Your task to perform on an android device: open device folders in google photos Image 0: 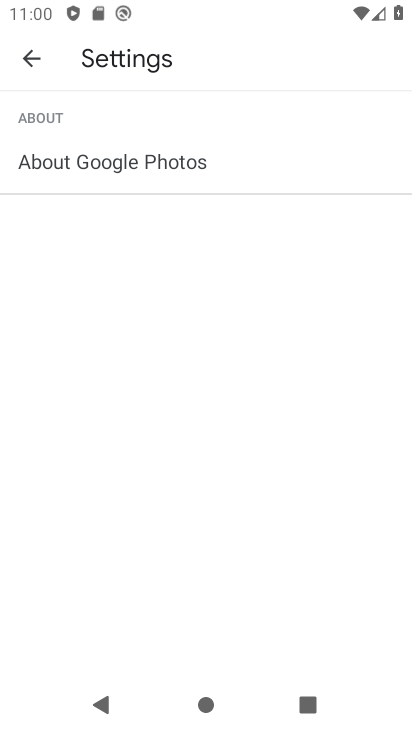
Step 0: press home button
Your task to perform on an android device: open device folders in google photos Image 1: 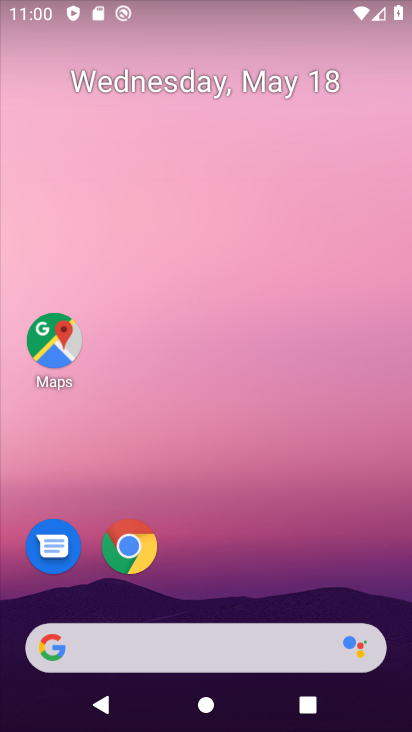
Step 1: drag from (229, 572) to (208, 49)
Your task to perform on an android device: open device folders in google photos Image 2: 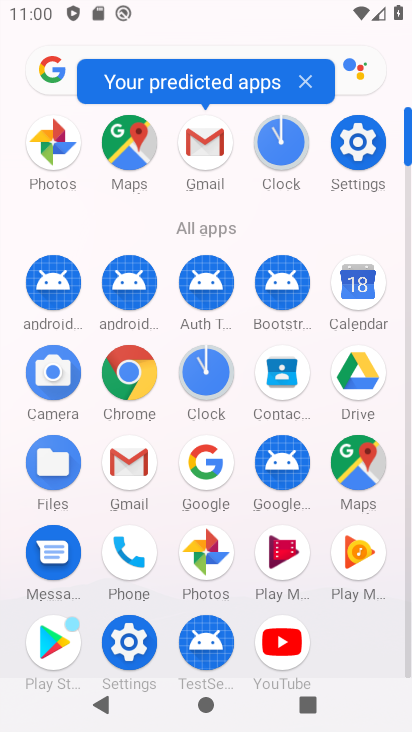
Step 2: click (202, 554)
Your task to perform on an android device: open device folders in google photos Image 3: 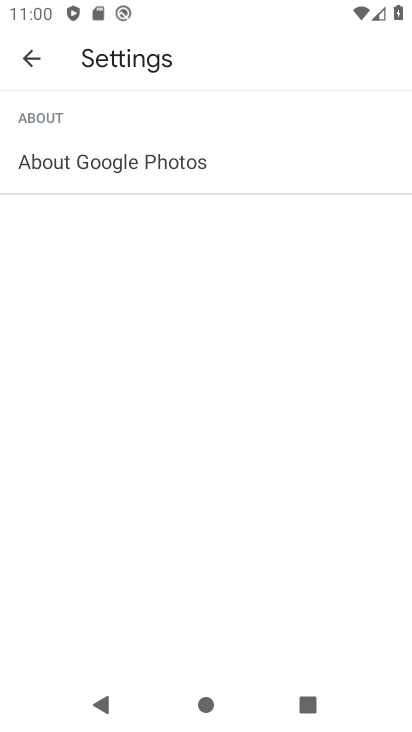
Step 3: press back button
Your task to perform on an android device: open device folders in google photos Image 4: 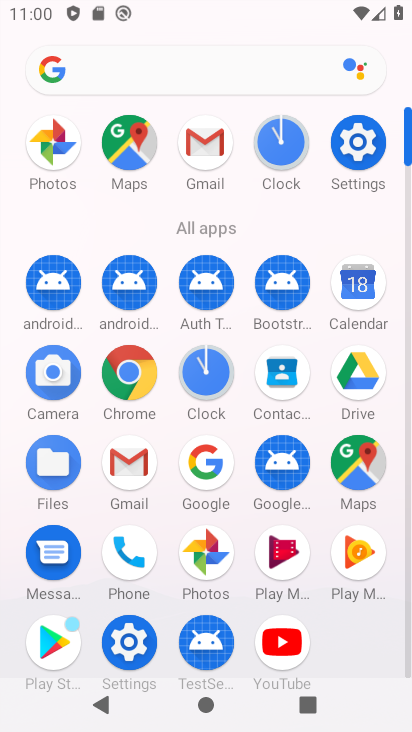
Step 4: click (211, 551)
Your task to perform on an android device: open device folders in google photos Image 5: 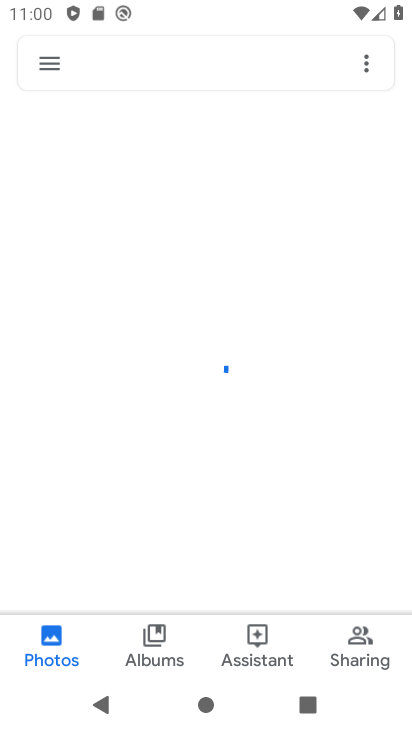
Step 5: click (46, 65)
Your task to perform on an android device: open device folders in google photos Image 6: 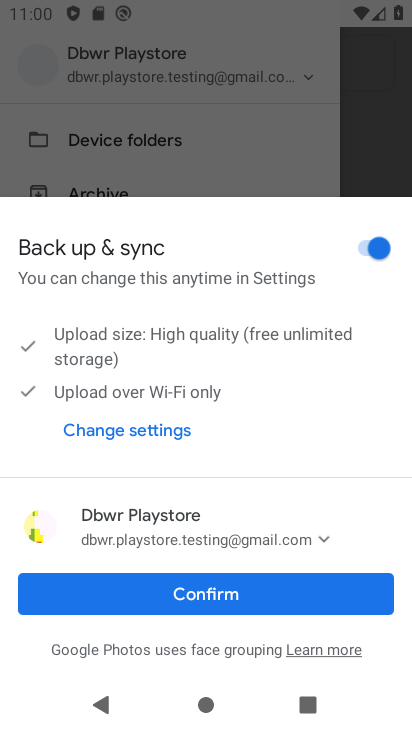
Step 6: click (227, 582)
Your task to perform on an android device: open device folders in google photos Image 7: 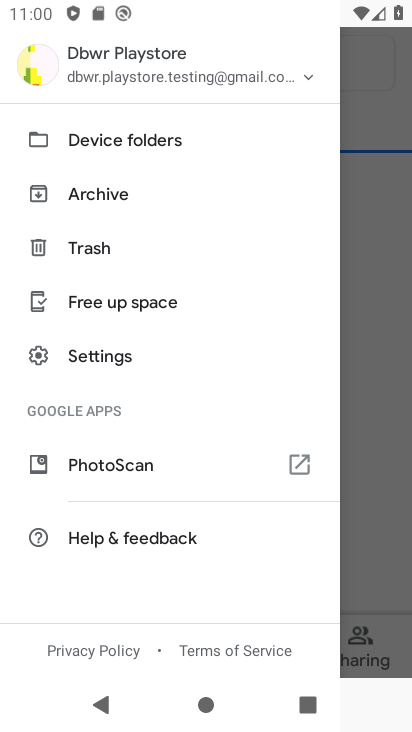
Step 7: click (111, 135)
Your task to perform on an android device: open device folders in google photos Image 8: 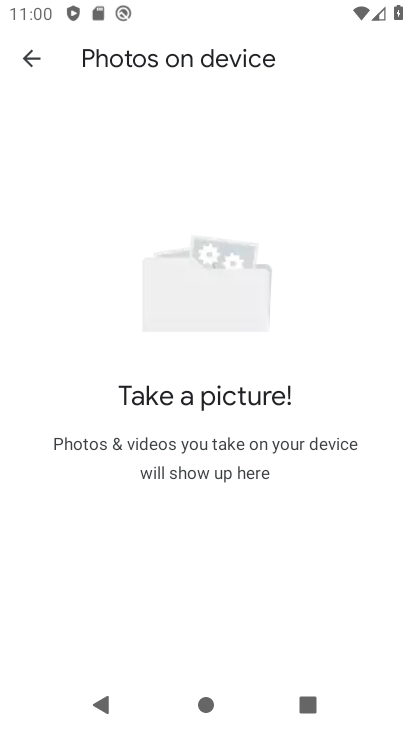
Step 8: task complete